Your task to perform on an android device: turn off location history Image 0: 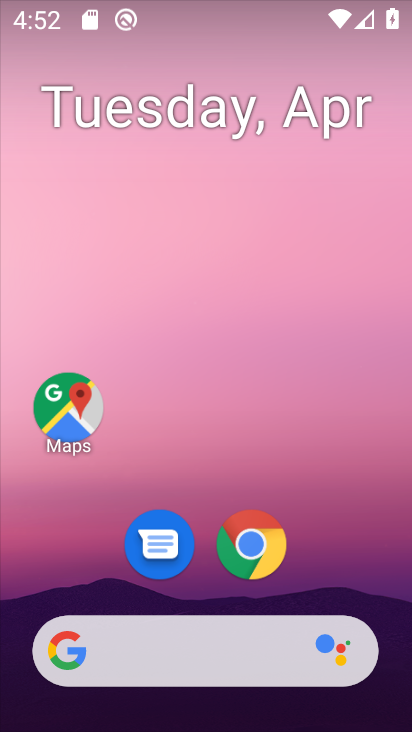
Step 0: drag from (244, 703) to (310, 118)
Your task to perform on an android device: turn off location history Image 1: 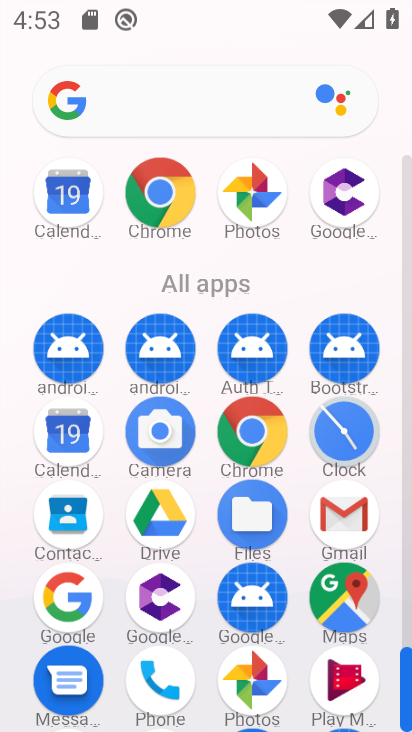
Step 1: drag from (287, 594) to (306, 307)
Your task to perform on an android device: turn off location history Image 2: 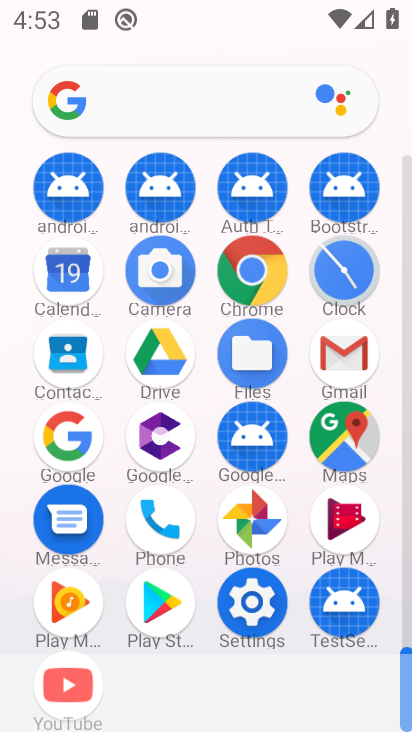
Step 2: click (252, 600)
Your task to perform on an android device: turn off location history Image 3: 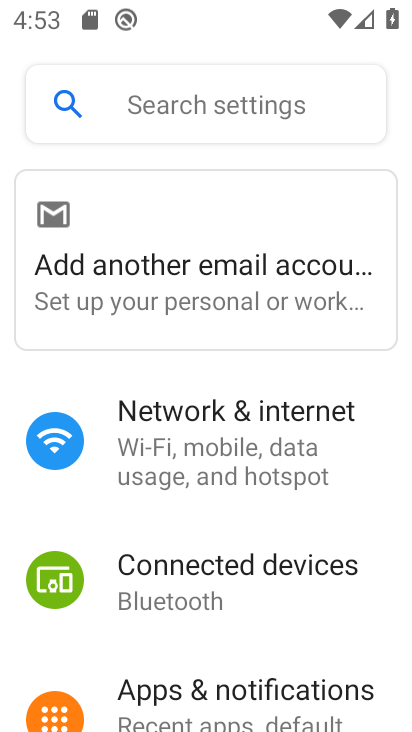
Step 3: drag from (253, 640) to (278, 386)
Your task to perform on an android device: turn off location history Image 4: 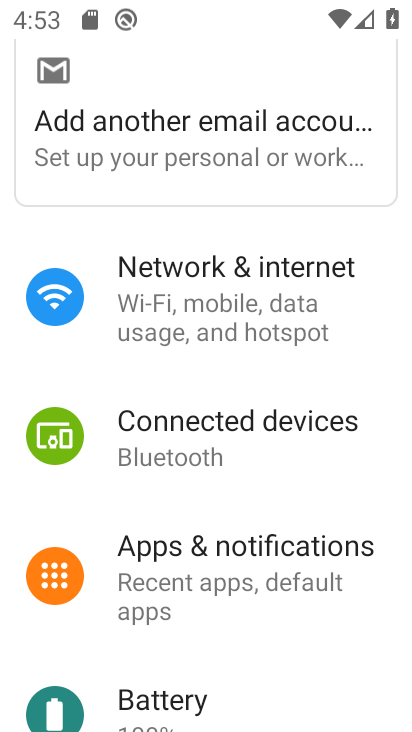
Step 4: drag from (254, 673) to (248, 455)
Your task to perform on an android device: turn off location history Image 5: 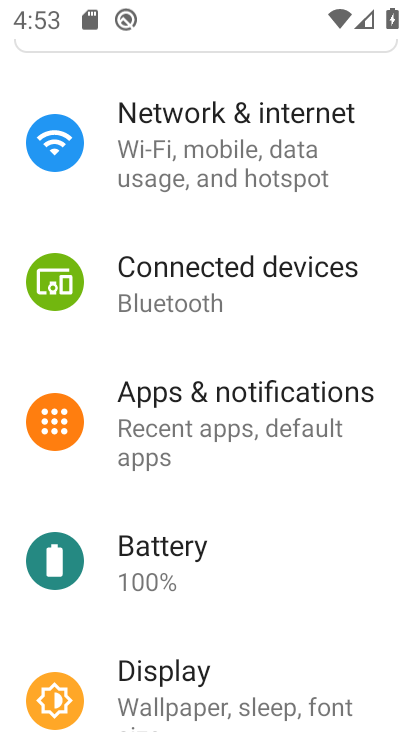
Step 5: drag from (275, 706) to (303, 448)
Your task to perform on an android device: turn off location history Image 6: 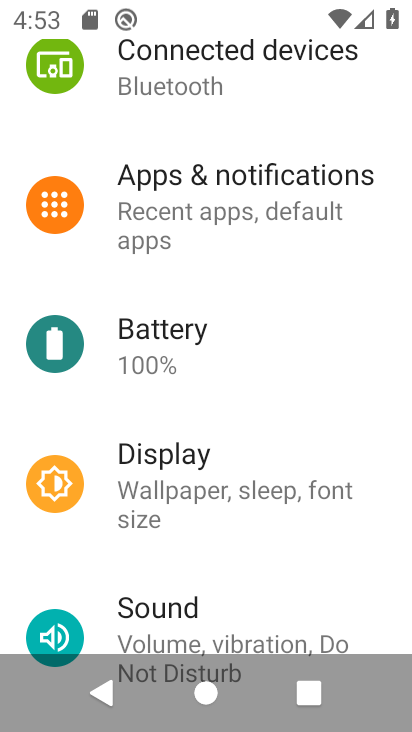
Step 6: drag from (277, 573) to (299, 430)
Your task to perform on an android device: turn off location history Image 7: 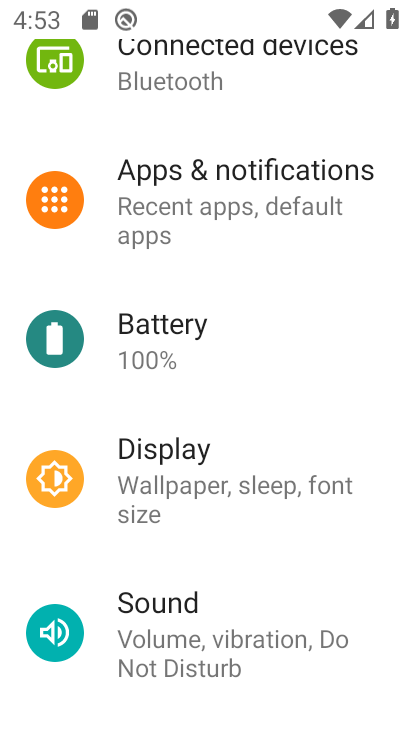
Step 7: drag from (266, 630) to (287, 385)
Your task to perform on an android device: turn off location history Image 8: 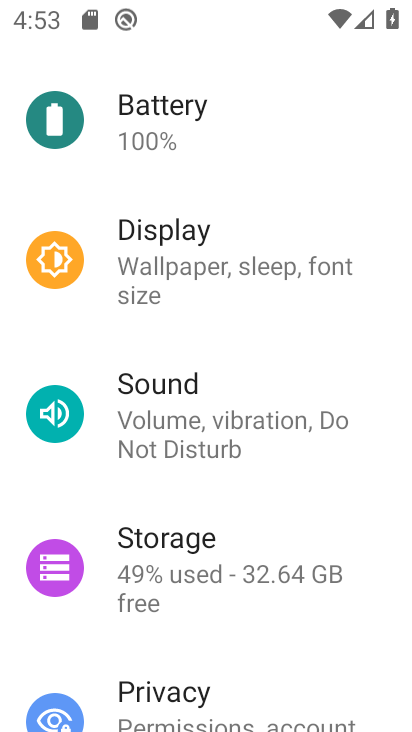
Step 8: drag from (273, 657) to (273, 414)
Your task to perform on an android device: turn off location history Image 9: 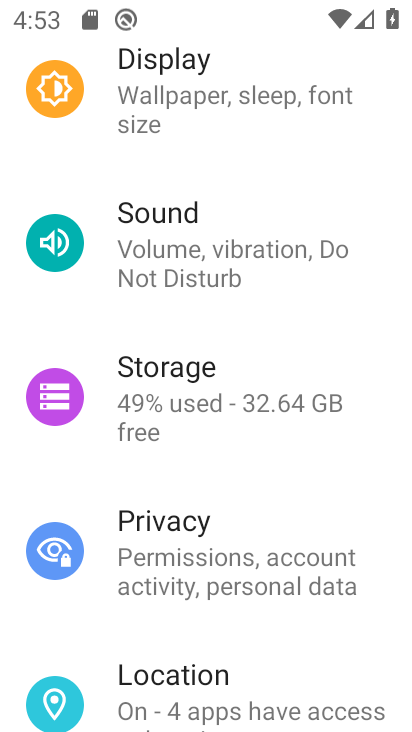
Step 9: drag from (272, 686) to (276, 426)
Your task to perform on an android device: turn off location history Image 10: 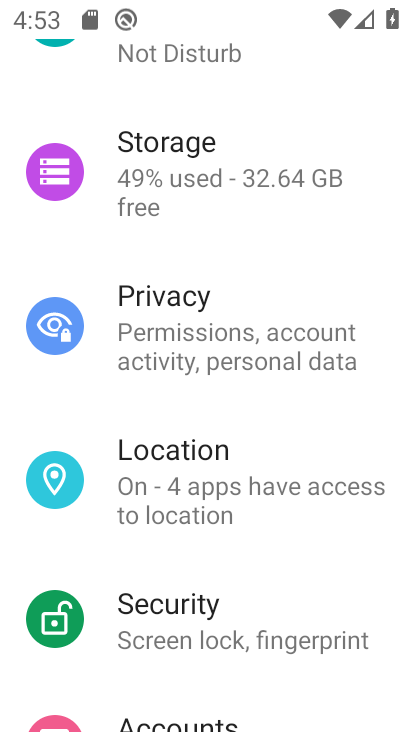
Step 10: click (261, 493)
Your task to perform on an android device: turn off location history Image 11: 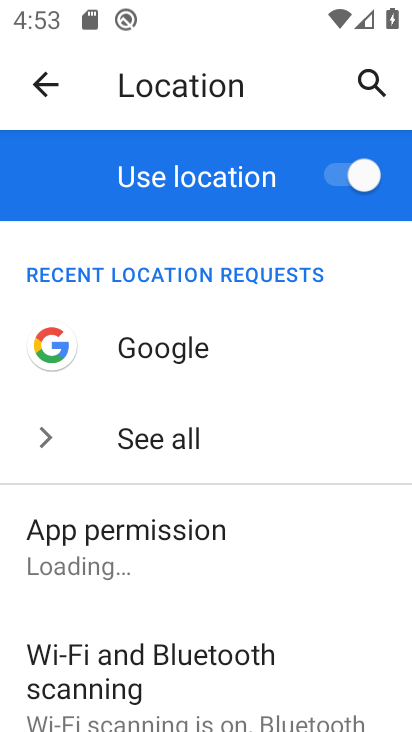
Step 11: drag from (235, 639) to (234, 340)
Your task to perform on an android device: turn off location history Image 12: 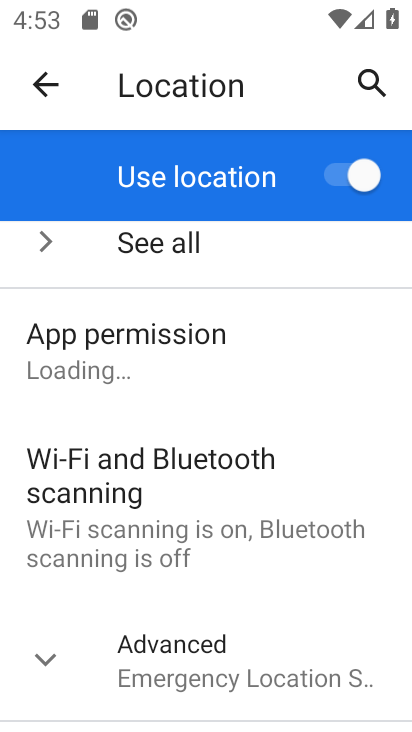
Step 12: drag from (261, 653) to (260, 483)
Your task to perform on an android device: turn off location history Image 13: 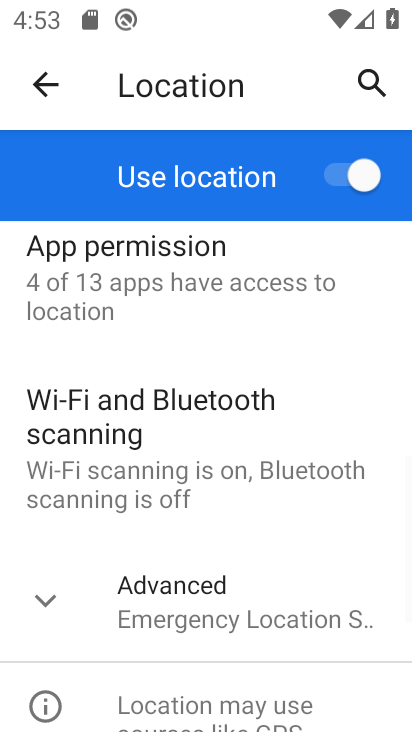
Step 13: click (58, 598)
Your task to perform on an android device: turn off location history Image 14: 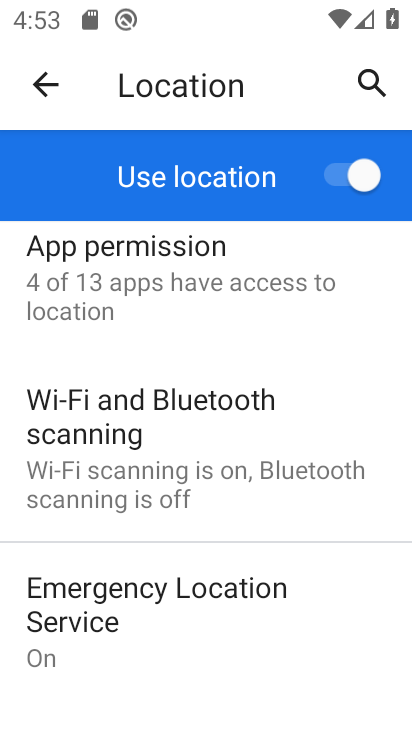
Step 14: drag from (272, 651) to (248, 412)
Your task to perform on an android device: turn off location history Image 15: 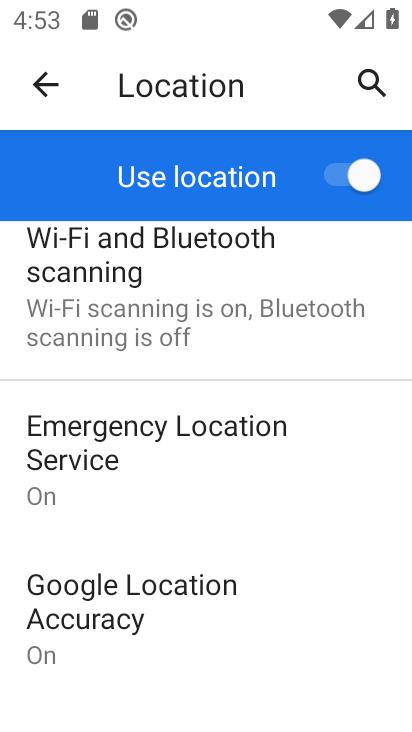
Step 15: drag from (244, 641) to (226, 495)
Your task to perform on an android device: turn off location history Image 16: 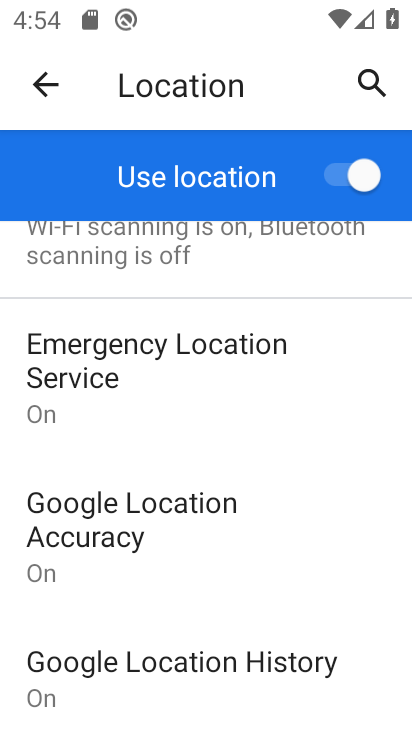
Step 16: click (221, 674)
Your task to perform on an android device: turn off location history Image 17: 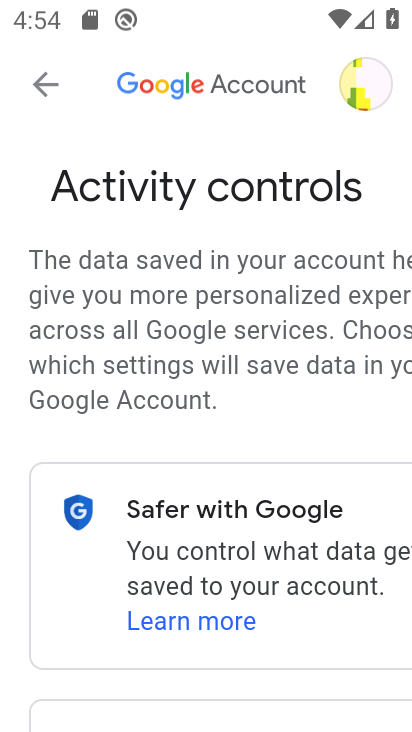
Step 17: drag from (236, 629) to (209, 438)
Your task to perform on an android device: turn off location history Image 18: 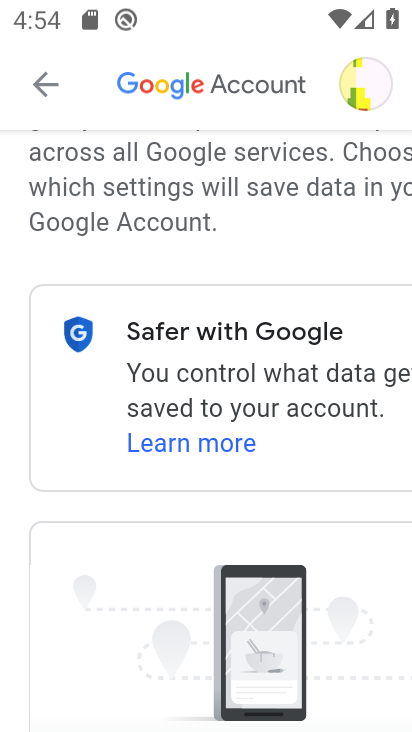
Step 18: drag from (332, 632) to (330, 341)
Your task to perform on an android device: turn off location history Image 19: 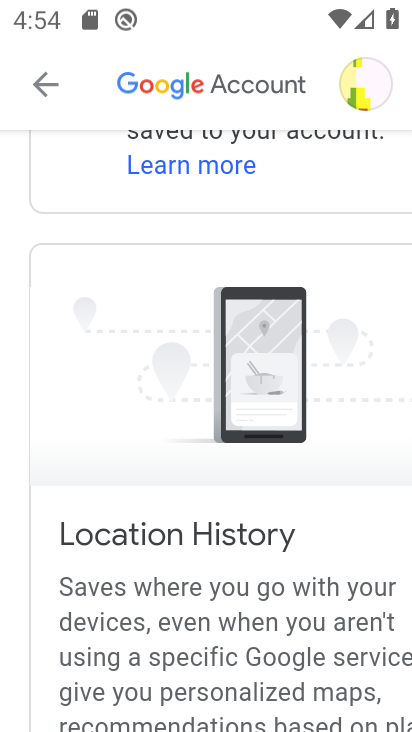
Step 19: drag from (296, 663) to (293, 462)
Your task to perform on an android device: turn off location history Image 20: 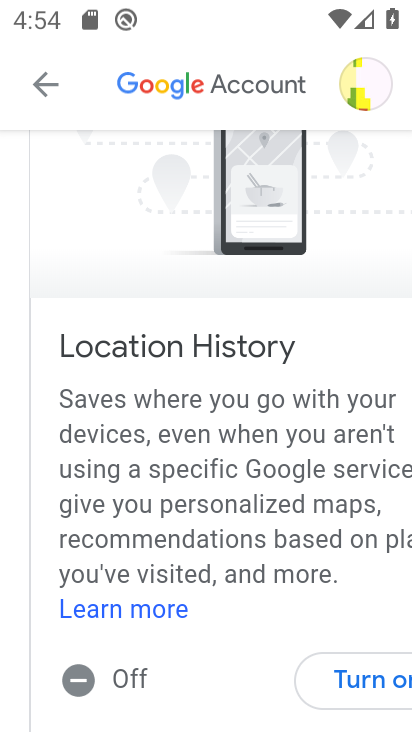
Step 20: click (384, 688)
Your task to perform on an android device: turn off location history Image 21: 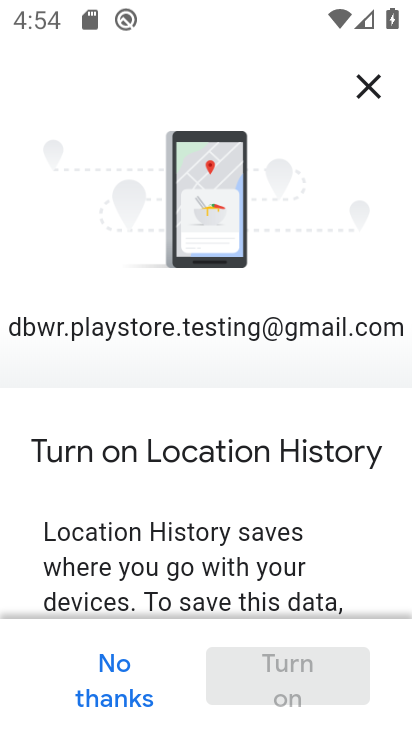
Step 21: click (124, 695)
Your task to perform on an android device: turn off location history Image 22: 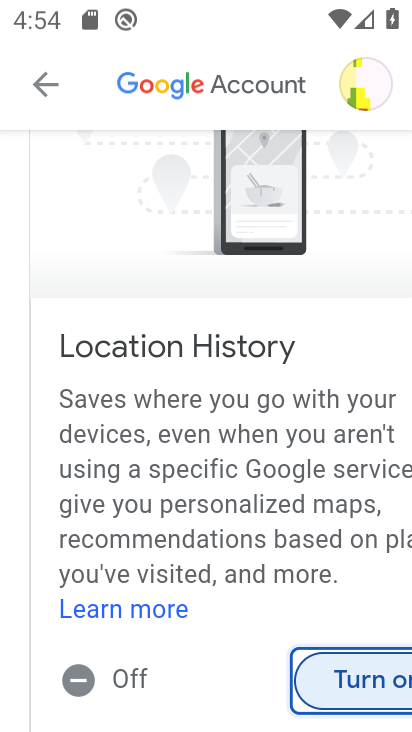
Step 22: task complete